Your task to perform on an android device: Open the web browser Image 0: 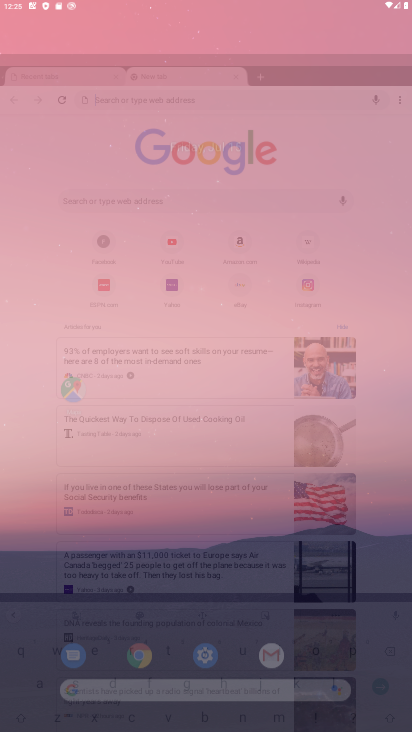
Step 0: press home button
Your task to perform on an android device: Open the web browser Image 1: 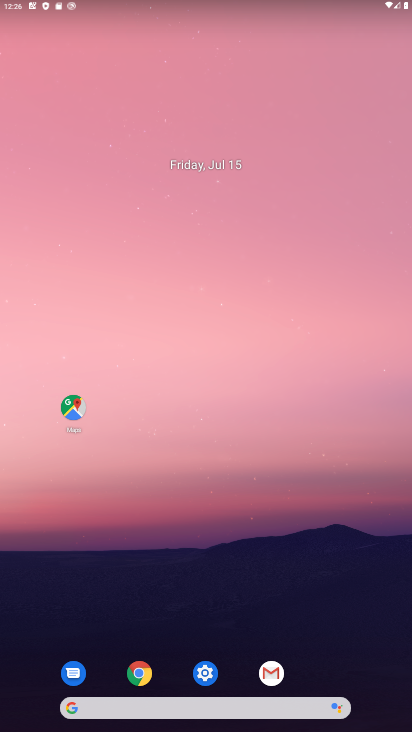
Step 1: drag from (232, 725) to (134, 329)
Your task to perform on an android device: Open the web browser Image 2: 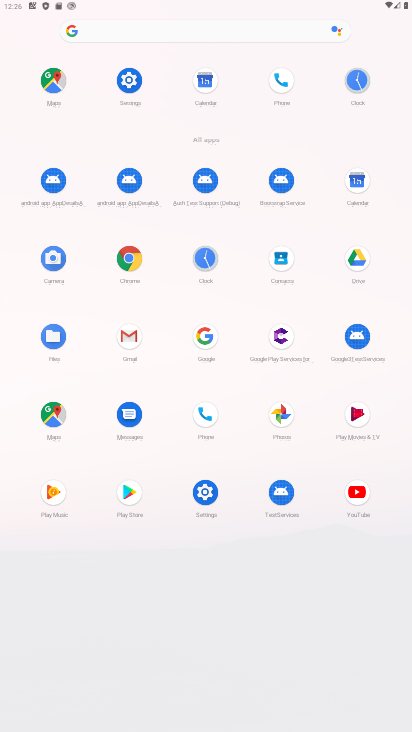
Step 2: click (135, 261)
Your task to perform on an android device: Open the web browser Image 3: 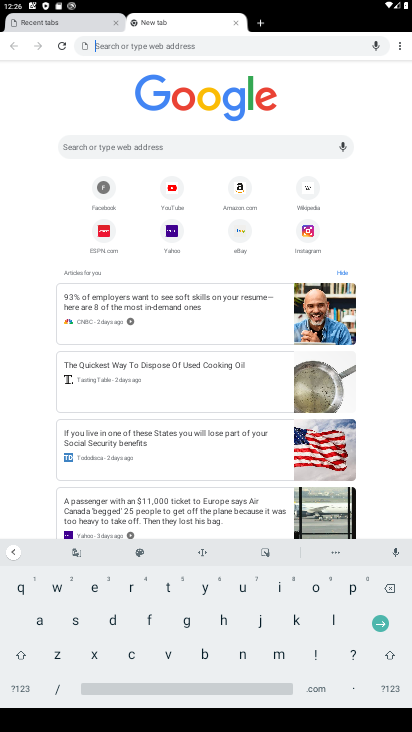
Step 3: click (170, 50)
Your task to perform on an android device: Open the web browser Image 4: 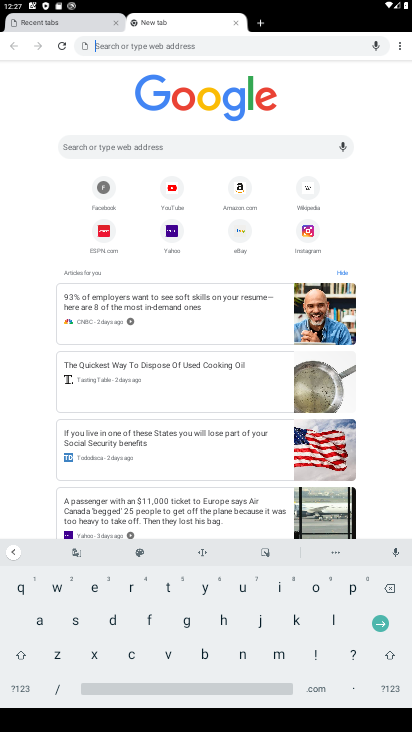
Step 4: task complete